Your task to perform on an android device: What's the weather going to be tomorrow? Image 0: 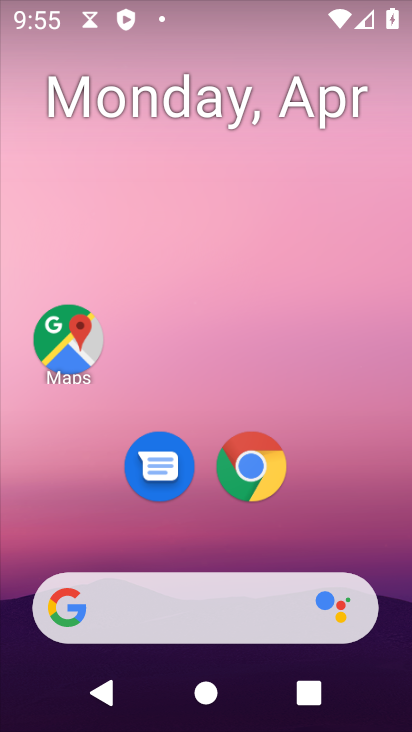
Step 0: drag from (196, 523) to (171, 69)
Your task to perform on an android device: What's the weather going to be tomorrow? Image 1: 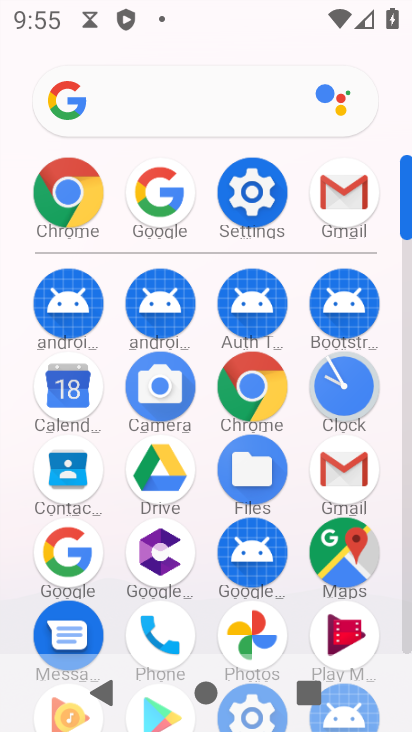
Step 1: click (149, 201)
Your task to perform on an android device: What's the weather going to be tomorrow? Image 2: 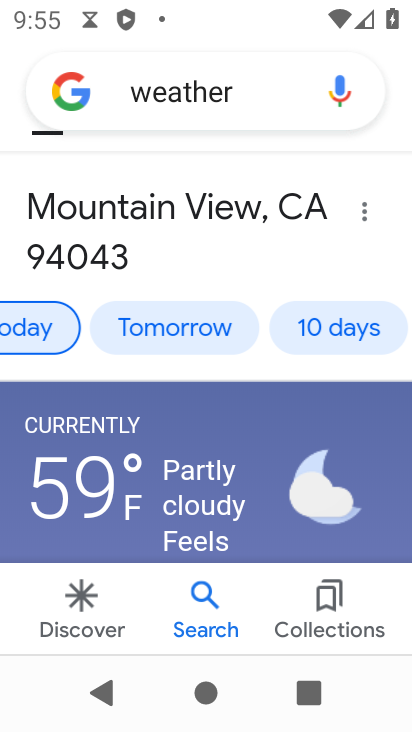
Step 2: click (198, 333)
Your task to perform on an android device: What's the weather going to be tomorrow? Image 3: 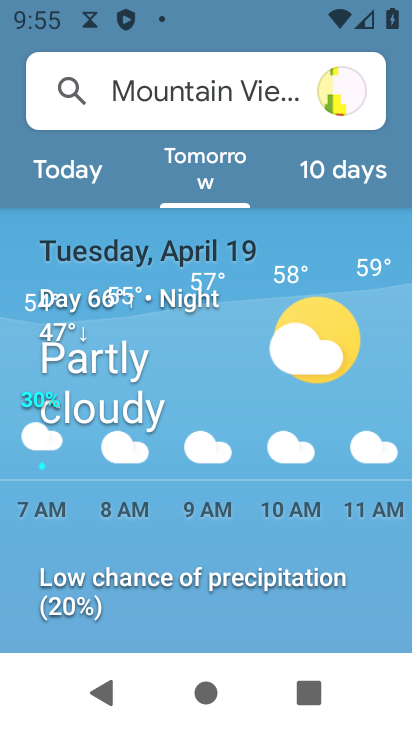
Step 3: task complete